Your task to perform on an android device: Open internet settings Image 0: 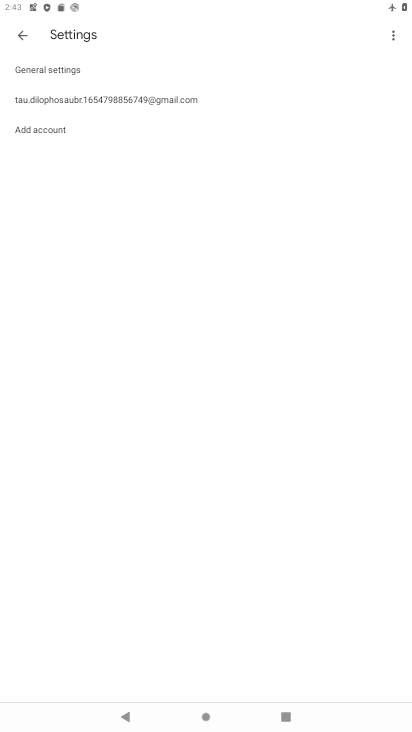
Step 0: press home button
Your task to perform on an android device: Open internet settings Image 1: 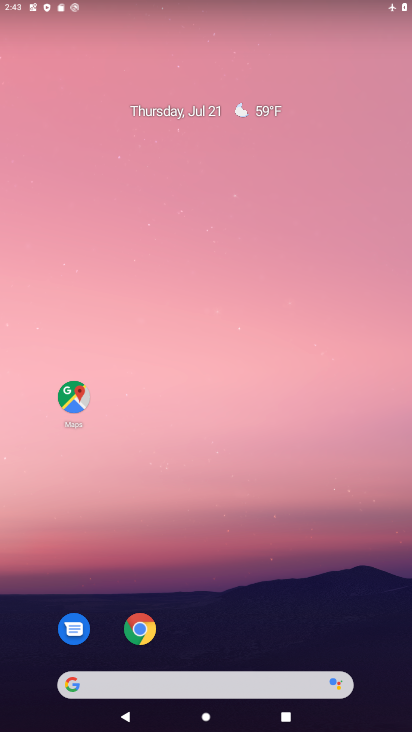
Step 1: drag from (234, 710) to (229, 97)
Your task to perform on an android device: Open internet settings Image 2: 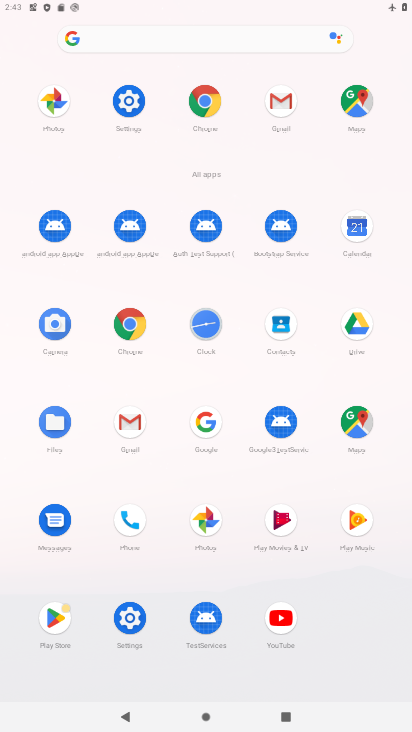
Step 2: click (123, 103)
Your task to perform on an android device: Open internet settings Image 3: 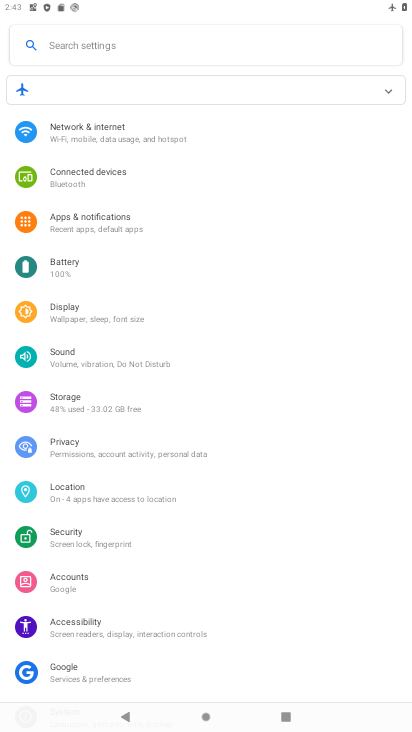
Step 3: click (100, 125)
Your task to perform on an android device: Open internet settings Image 4: 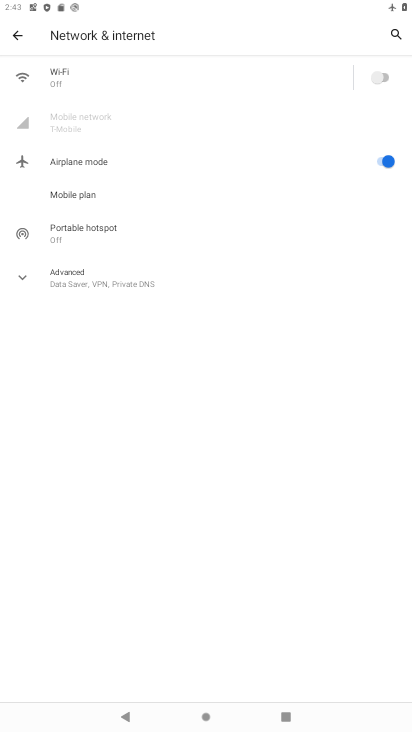
Step 4: task complete